Your task to perform on an android device: Go to Reddit.com Image 0: 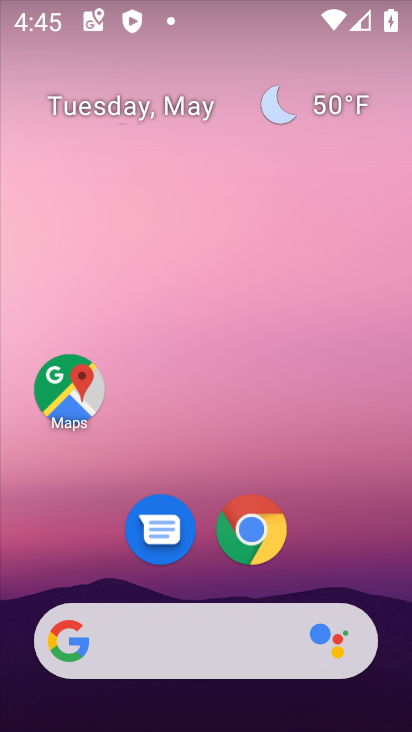
Step 0: drag from (321, 506) to (238, 20)
Your task to perform on an android device: Go to Reddit.com Image 1: 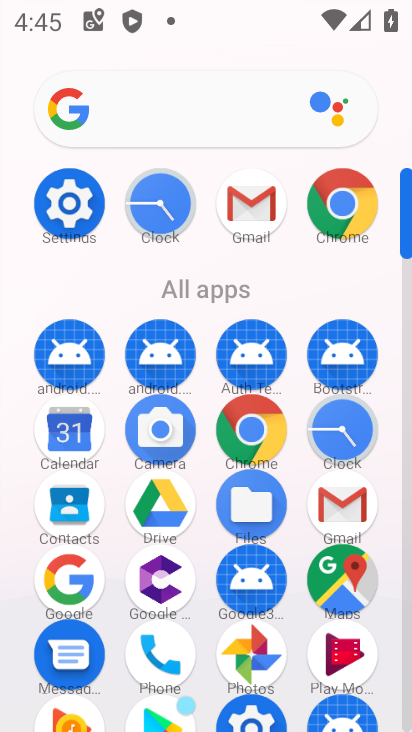
Step 1: drag from (17, 548) to (15, 212)
Your task to perform on an android device: Go to Reddit.com Image 2: 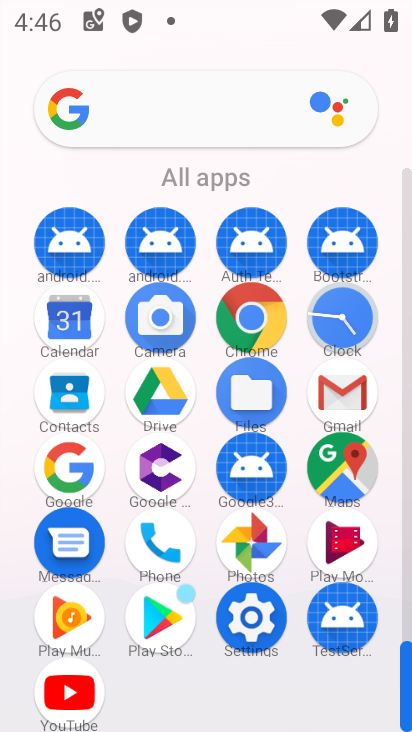
Step 2: click (254, 310)
Your task to perform on an android device: Go to Reddit.com Image 3: 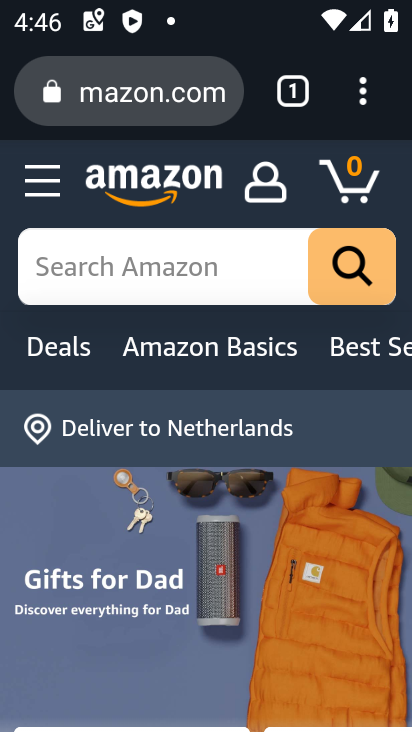
Step 3: click (169, 95)
Your task to perform on an android device: Go to Reddit.com Image 4: 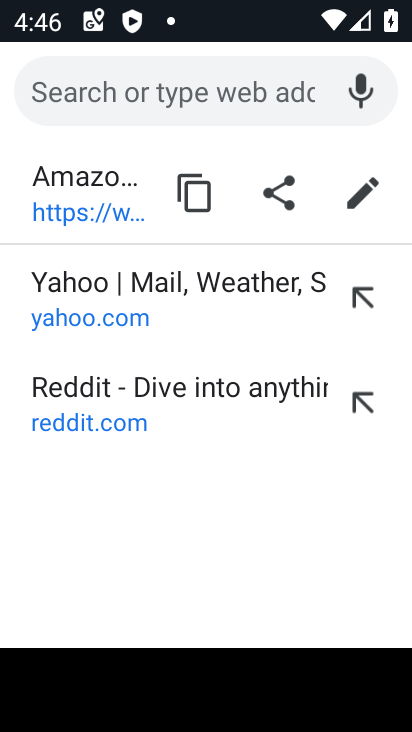
Step 4: click (144, 408)
Your task to perform on an android device: Go to Reddit.com Image 5: 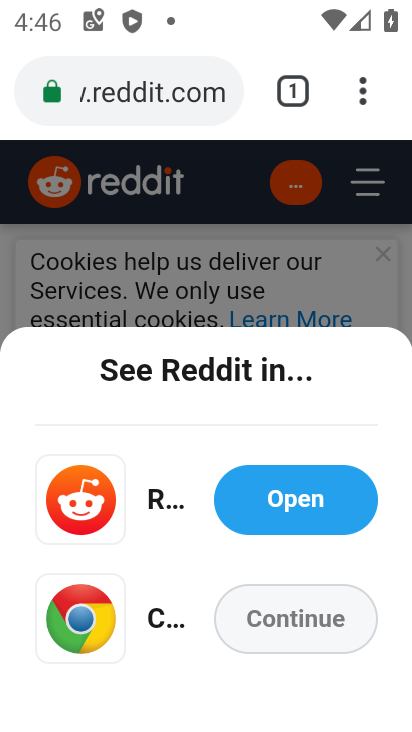
Step 5: task complete